Your task to perform on an android device: turn off translation in the chrome app Image 0: 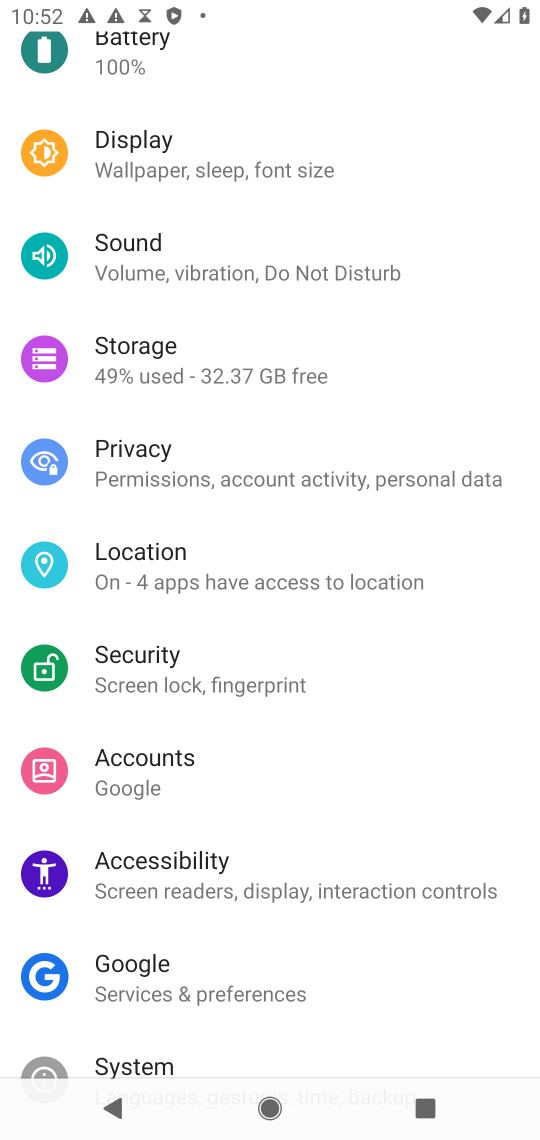
Step 0: press back button
Your task to perform on an android device: turn off translation in the chrome app Image 1: 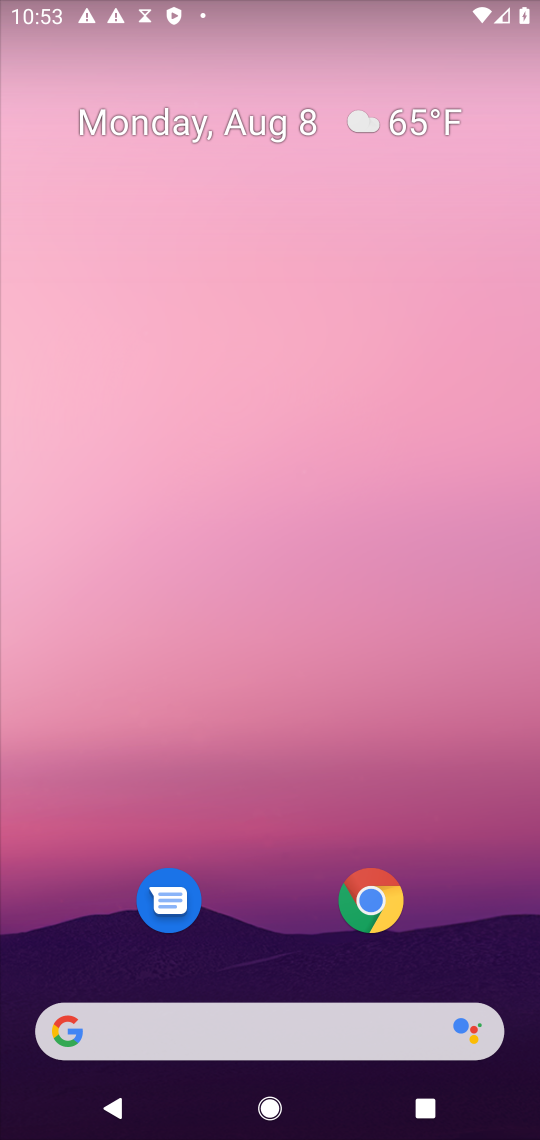
Step 1: click (371, 903)
Your task to perform on an android device: turn off translation in the chrome app Image 2: 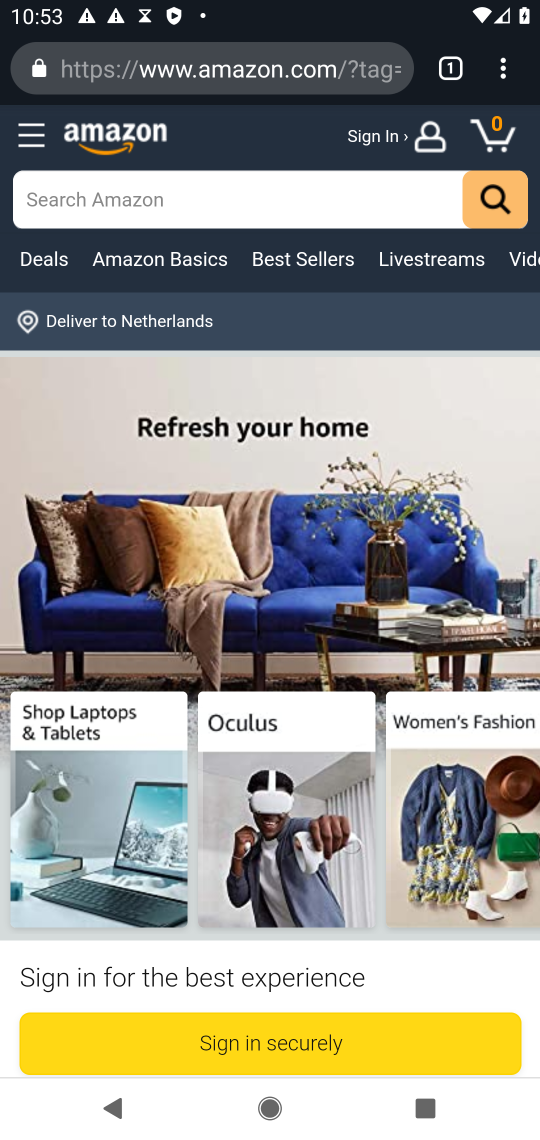
Step 2: click (507, 71)
Your task to perform on an android device: turn off translation in the chrome app Image 3: 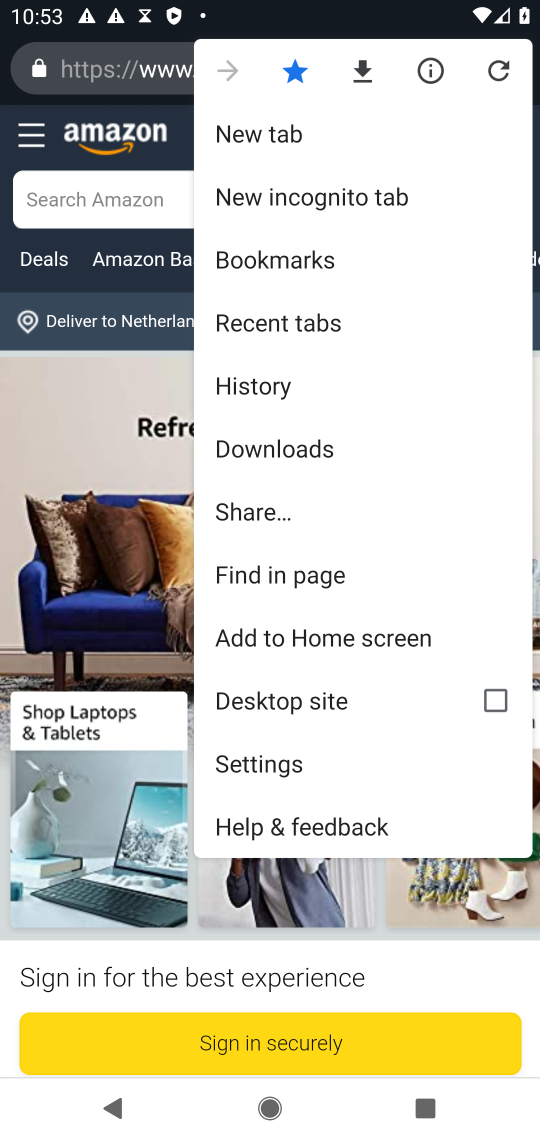
Step 3: click (277, 757)
Your task to perform on an android device: turn off translation in the chrome app Image 4: 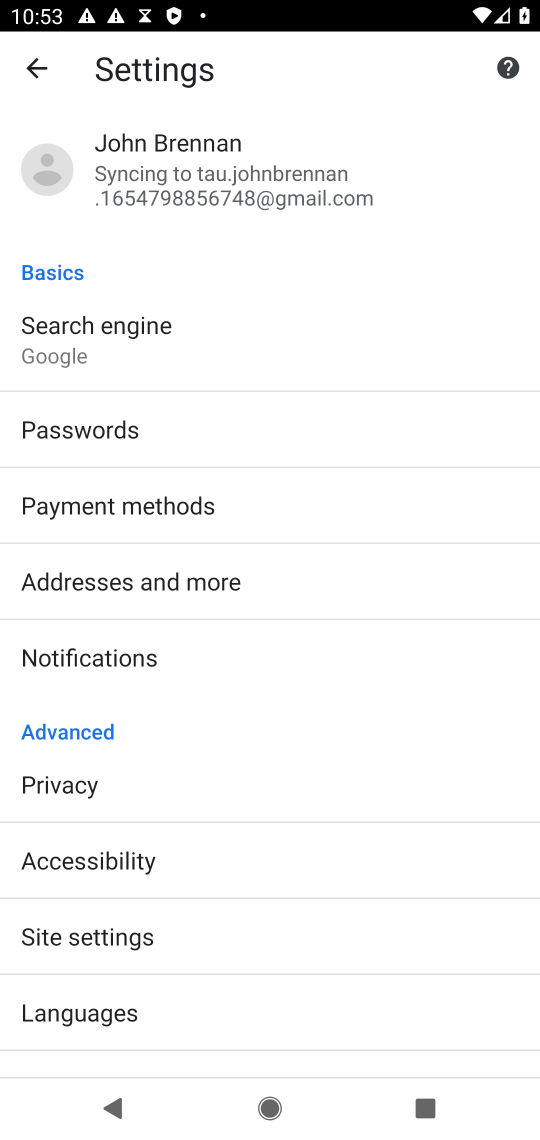
Step 4: click (84, 1013)
Your task to perform on an android device: turn off translation in the chrome app Image 5: 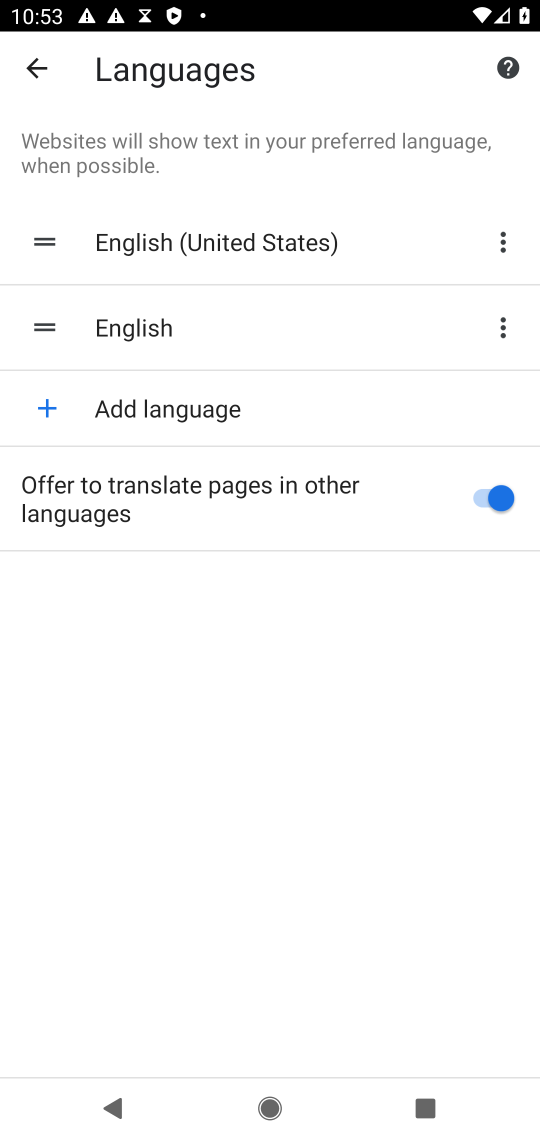
Step 5: click (482, 506)
Your task to perform on an android device: turn off translation in the chrome app Image 6: 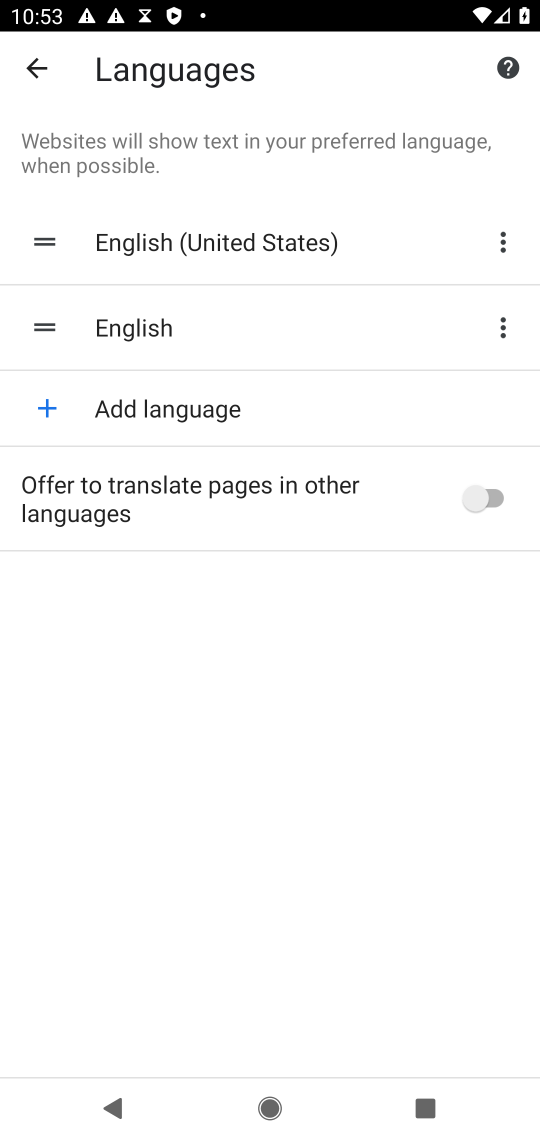
Step 6: task complete